Your task to perform on an android device: Turn on the flashlight Image 0: 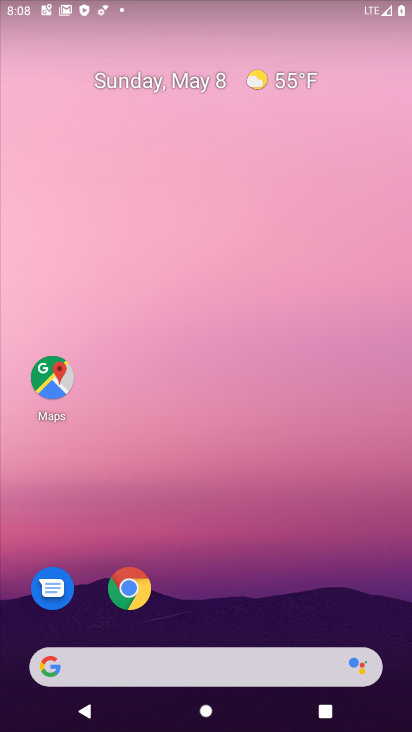
Step 0: drag from (323, 613) to (244, 43)
Your task to perform on an android device: Turn on the flashlight Image 1: 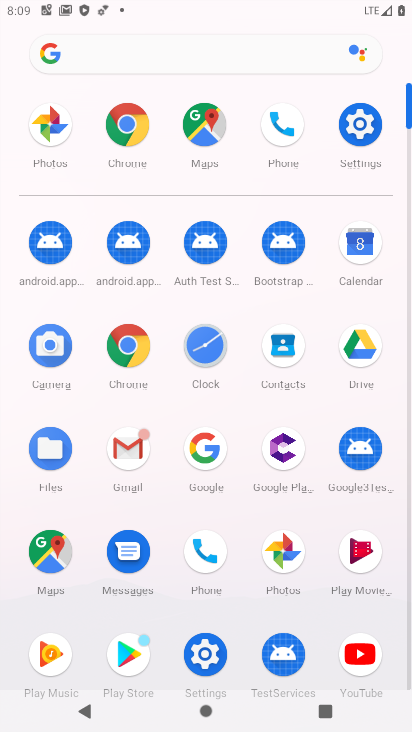
Step 1: click (378, 135)
Your task to perform on an android device: Turn on the flashlight Image 2: 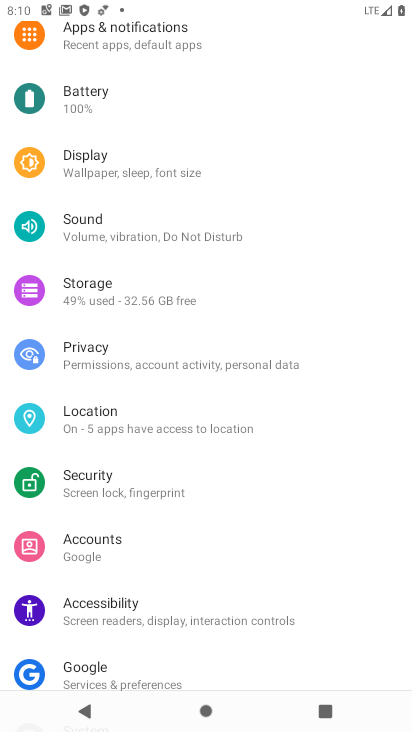
Step 2: task complete